Your task to perform on an android device: uninstall "LiveIn - Share Your Moment" Image 0: 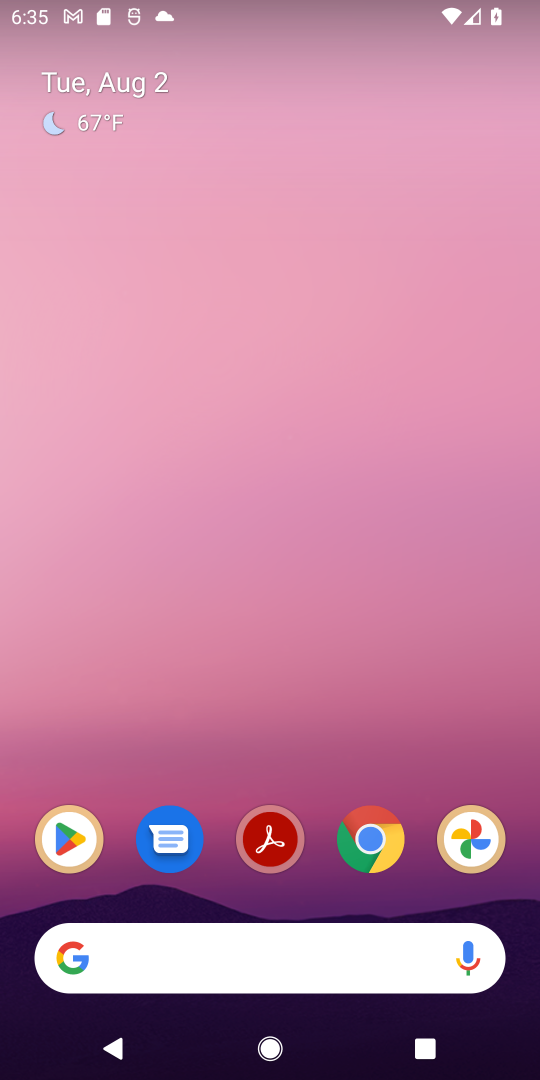
Step 0: click (67, 817)
Your task to perform on an android device: uninstall "LiveIn - Share Your Moment" Image 1: 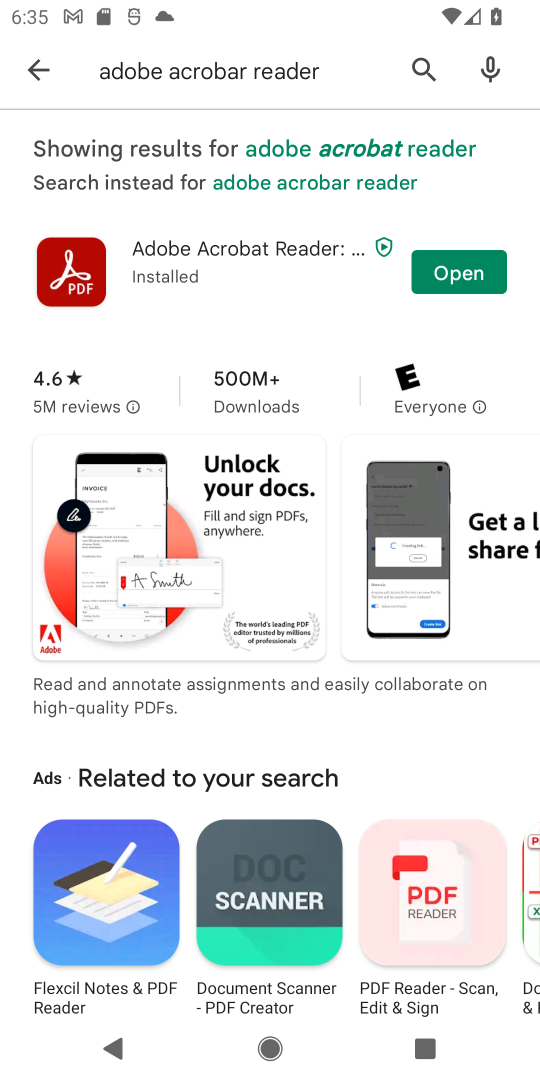
Step 1: click (260, 75)
Your task to perform on an android device: uninstall "LiveIn - Share Your Moment" Image 2: 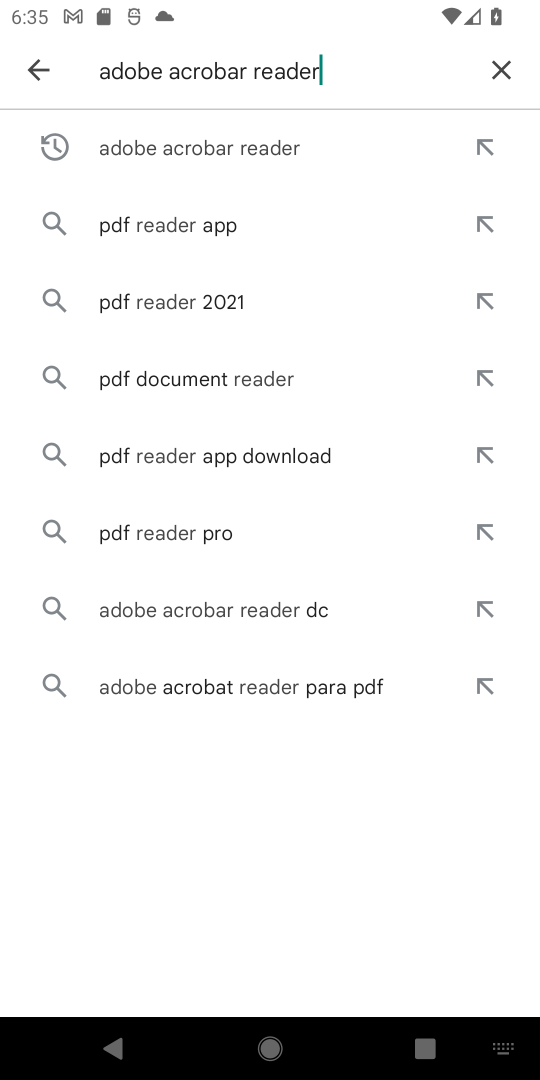
Step 2: click (492, 63)
Your task to perform on an android device: uninstall "LiveIn - Share Your Moment" Image 3: 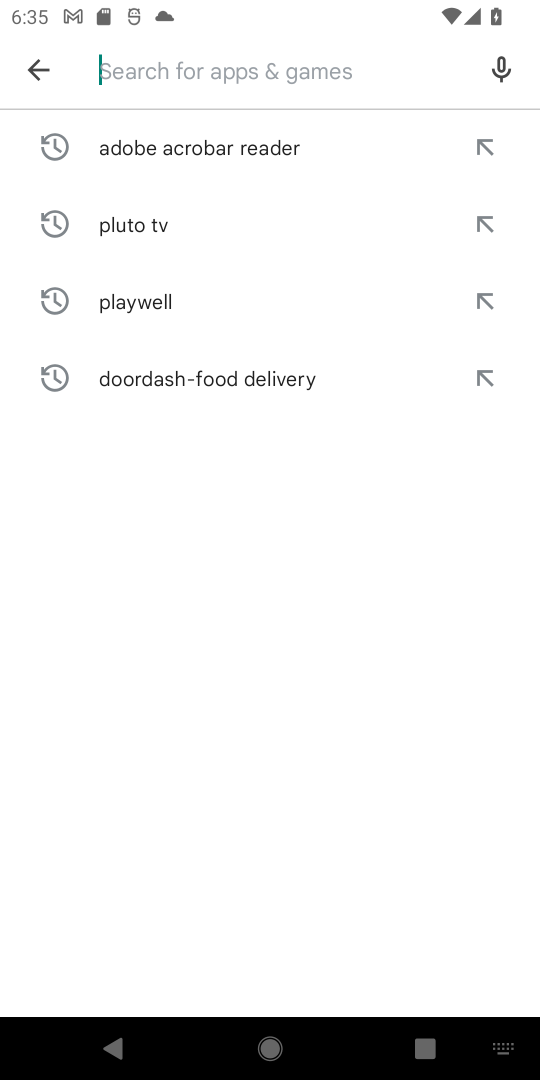
Step 3: type "LiveIn"
Your task to perform on an android device: uninstall "LiveIn - Share Your Moment" Image 4: 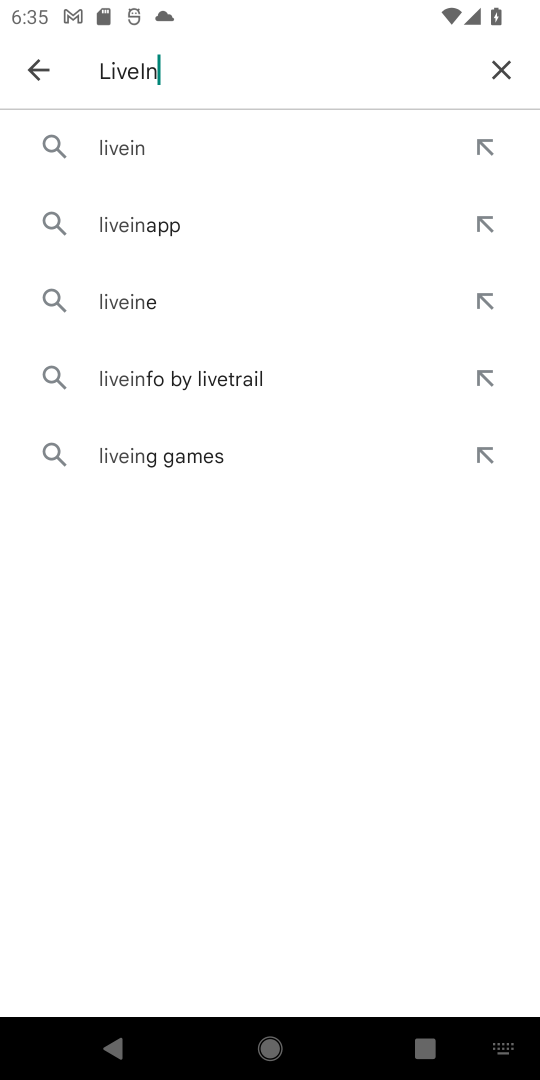
Step 4: click (170, 152)
Your task to perform on an android device: uninstall "LiveIn - Share Your Moment" Image 5: 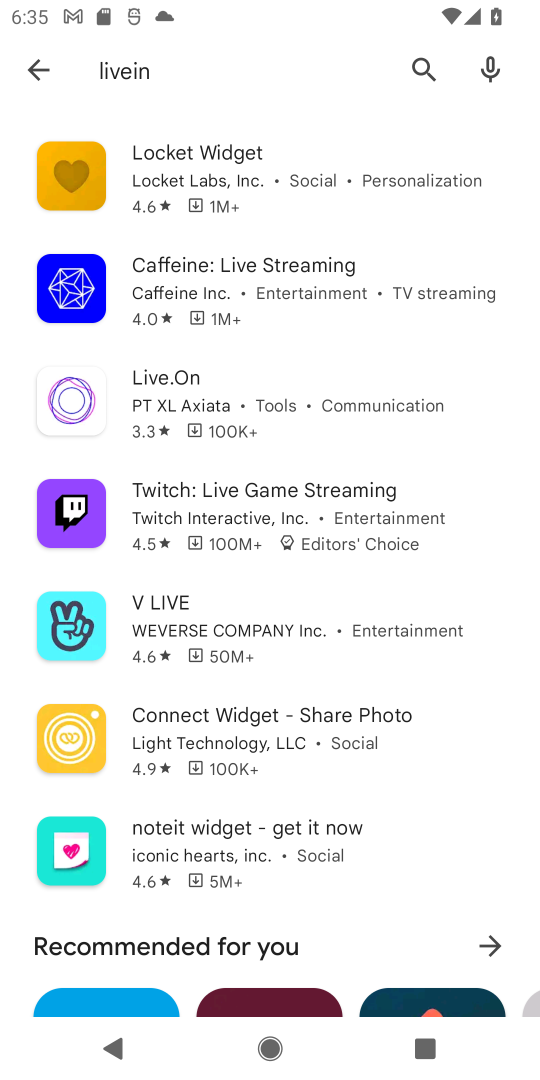
Step 5: task complete